Your task to perform on an android device: clear all cookies in the chrome app Image 0: 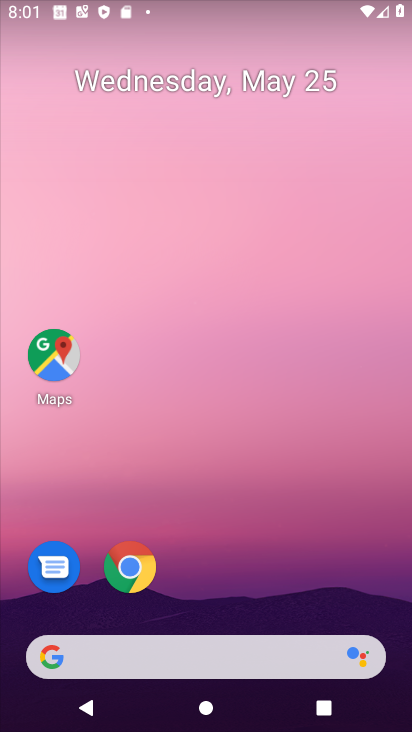
Step 0: click (148, 570)
Your task to perform on an android device: clear all cookies in the chrome app Image 1: 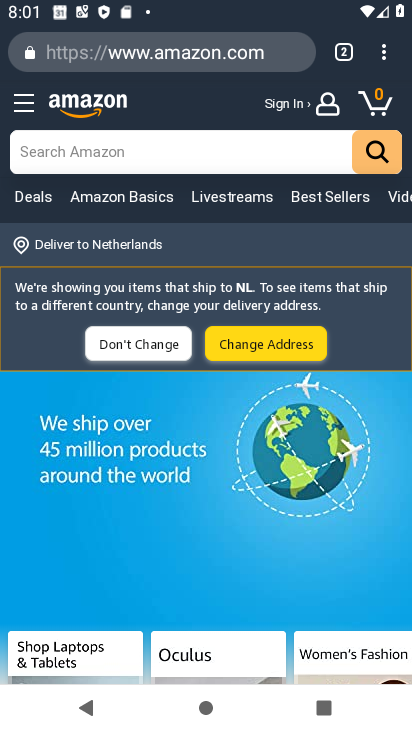
Step 1: click (390, 53)
Your task to perform on an android device: clear all cookies in the chrome app Image 2: 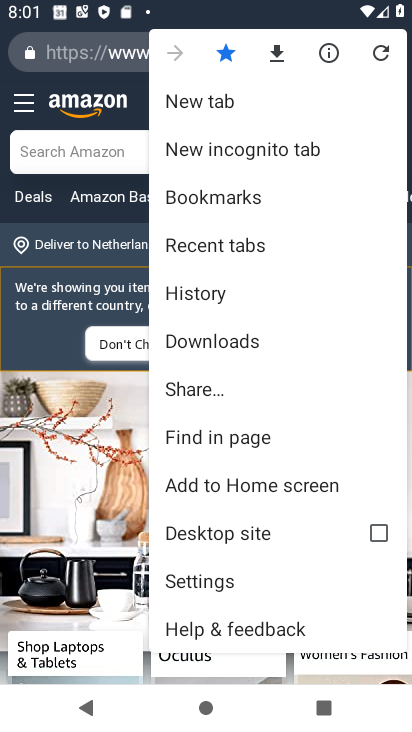
Step 2: click (228, 566)
Your task to perform on an android device: clear all cookies in the chrome app Image 3: 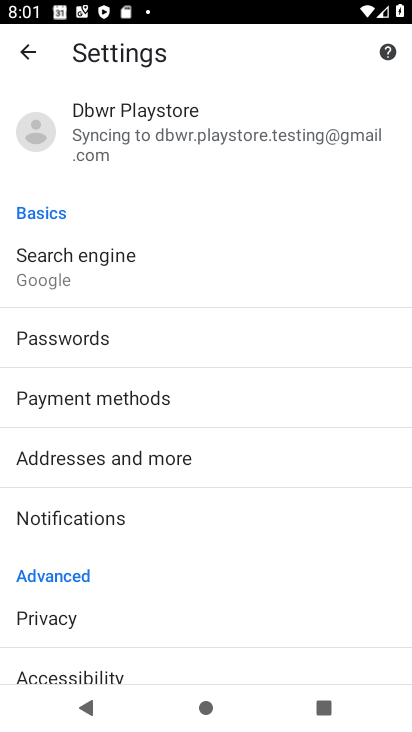
Step 3: task complete